Your task to perform on an android device: Go to battery settings Image 0: 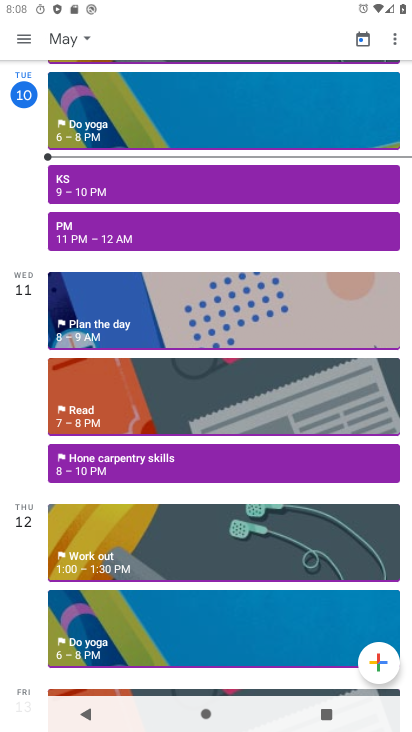
Step 0: press back button
Your task to perform on an android device: Go to battery settings Image 1: 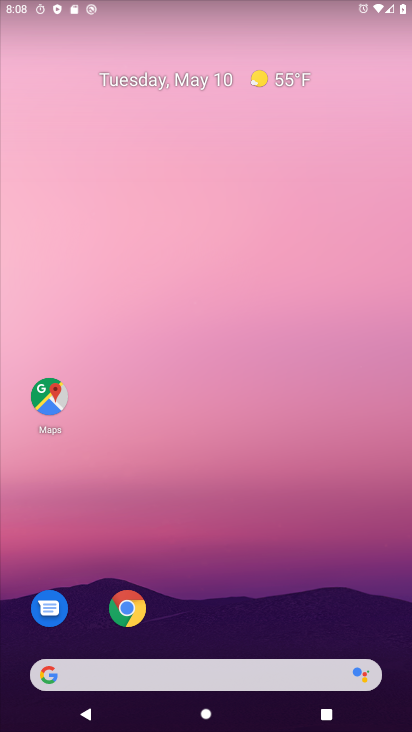
Step 1: drag from (230, 601) to (156, 70)
Your task to perform on an android device: Go to battery settings Image 2: 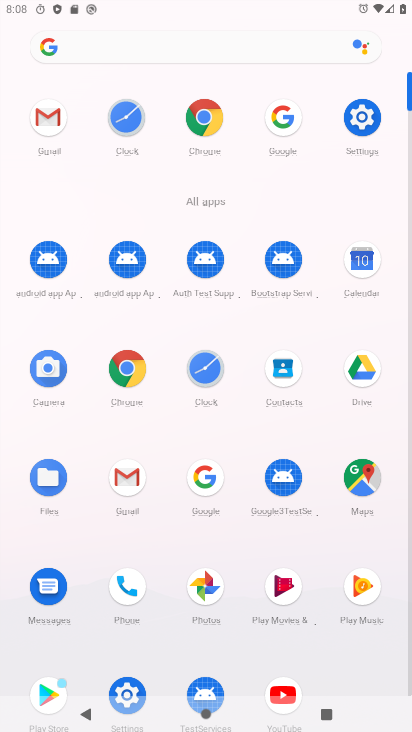
Step 2: click (361, 115)
Your task to perform on an android device: Go to battery settings Image 3: 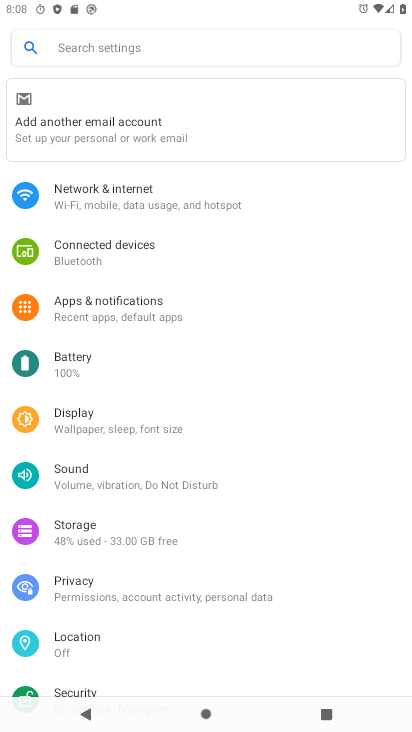
Step 3: click (75, 360)
Your task to perform on an android device: Go to battery settings Image 4: 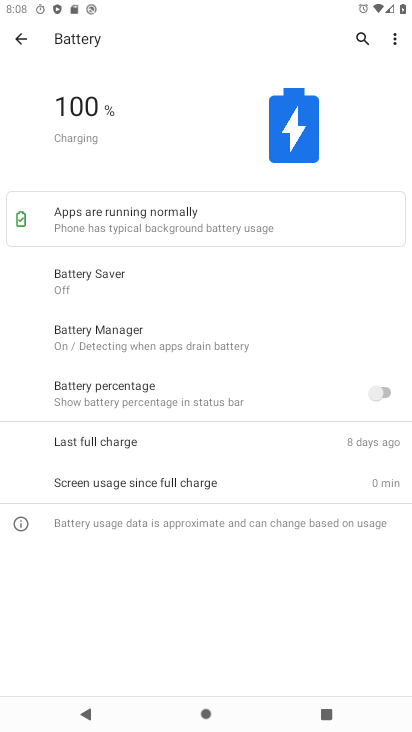
Step 4: task complete